Your task to perform on an android device: Show me recent news Image 0: 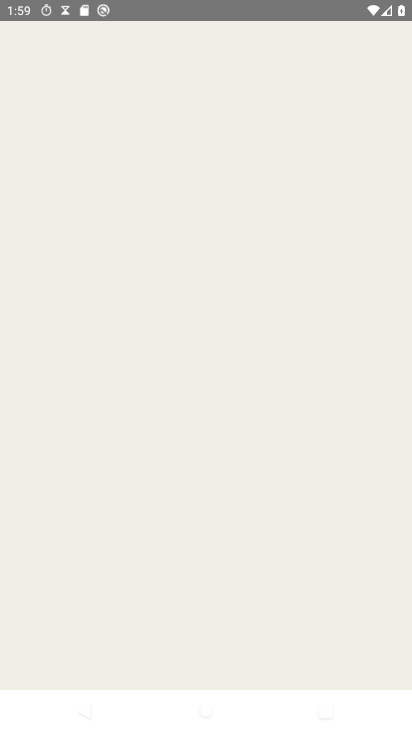
Step 0: click (71, 672)
Your task to perform on an android device: Show me recent news Image 1: 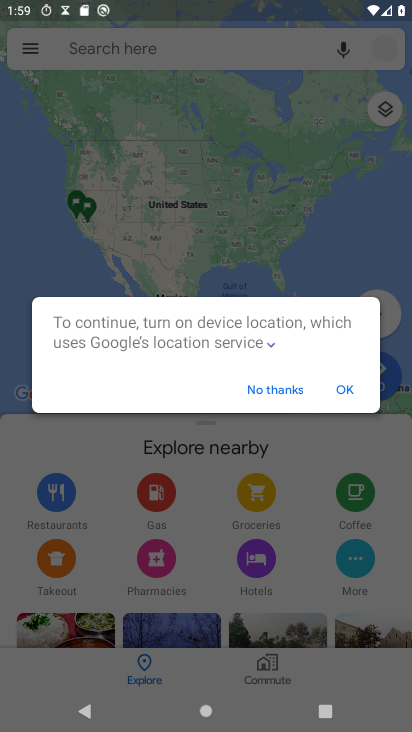
Step 1: click (347, 393)
Your task to perform on an android device: Show me recent news Image 2: 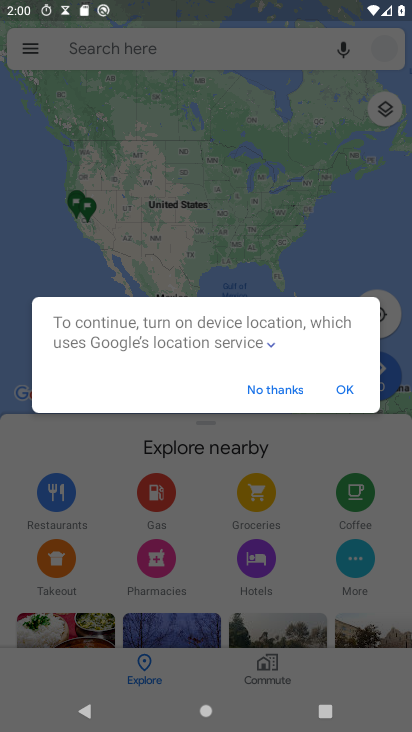
Step 2: click (271, 390)
Your task to perform on an android device: Show me recent news Image 3: 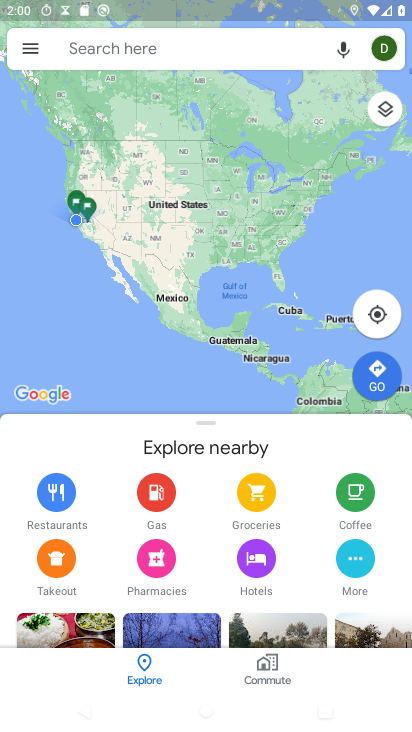
Step 3: press home button
Your task to perform on an android device: Show me recent news Image 4: 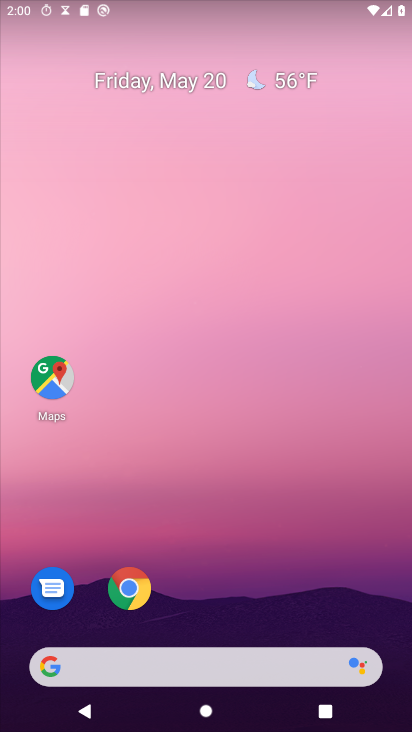
Step 4: click (202, 668)
Your task to perform on an android device: Show me recent news Image 5: 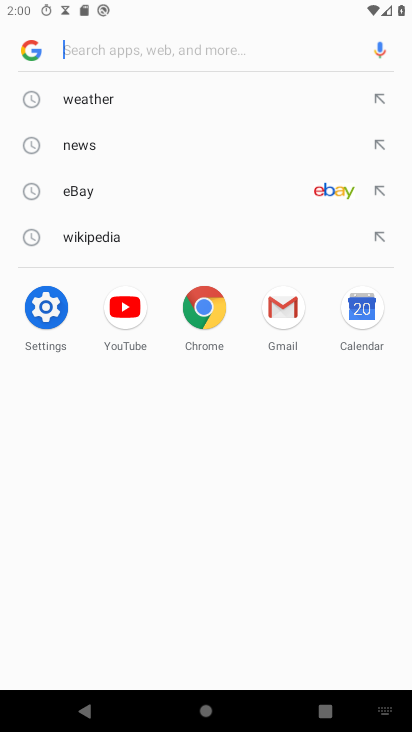
Step 5: click (77, 143)
Your task to perform on an android device: Show me recent news Image 6: 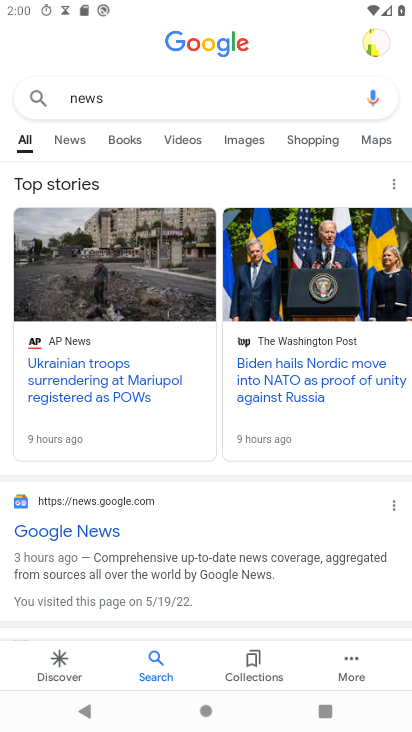
Step 6: task complete